Your task to perform on an android device: Go to calendar. Show me events next week Image 0: 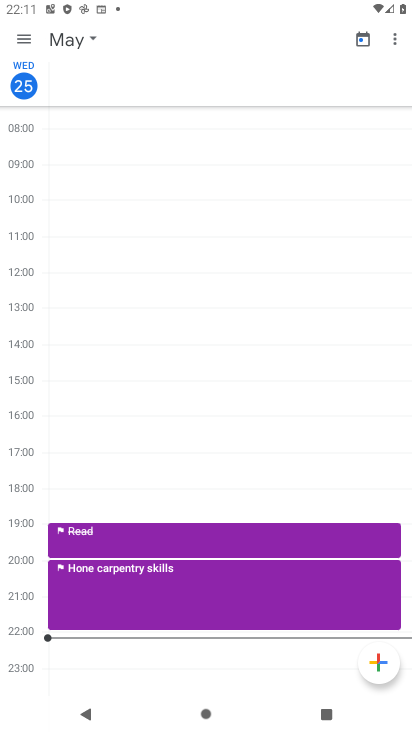
Step 0: press home button
Your task to perform on an android device: Go to calendar. Show me events next week Image 1: 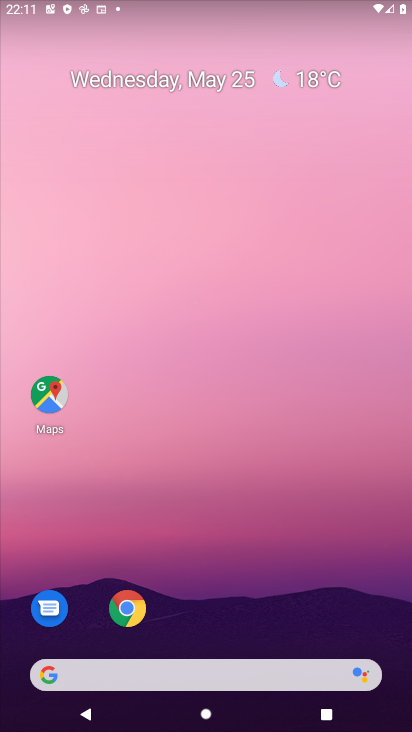
Step 1: click (179, 81)
Your task to perform on an android device: Go to calendar. Show me events next week Image 2: 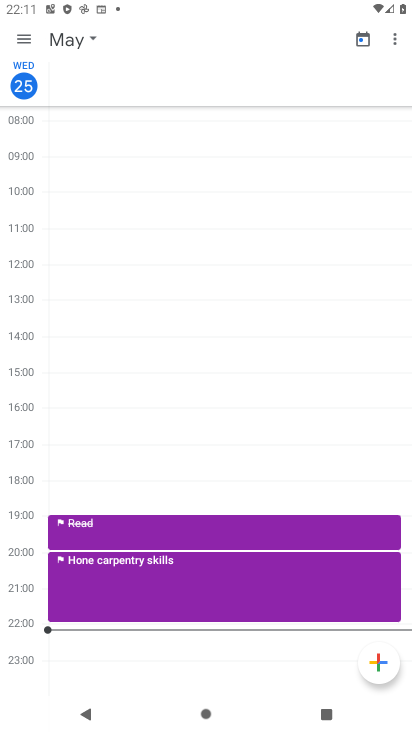
Step 2: click (27, 40)
Your task to perform on an android device: Go to calendar. Show me events next week Image 3: 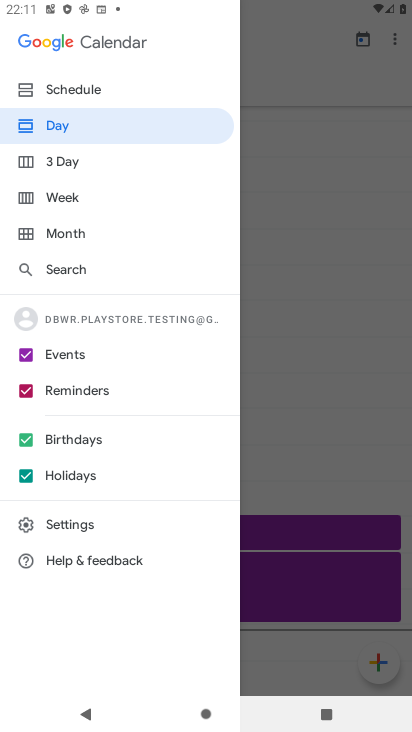
Step 3: click (88, 193)
Your task to perform on an android device: Go to calendar. Show me events next week Image 4: 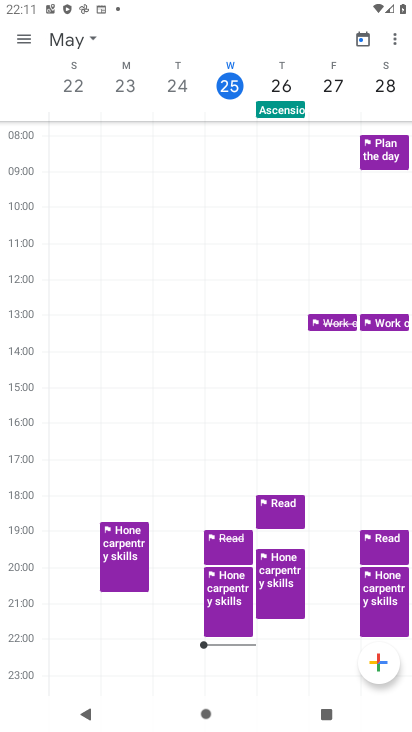
Step 4: drag from (10, 605) to (18, 111)
Your task to perform on an android device: Go to calendar. Show me events next week Image 5: 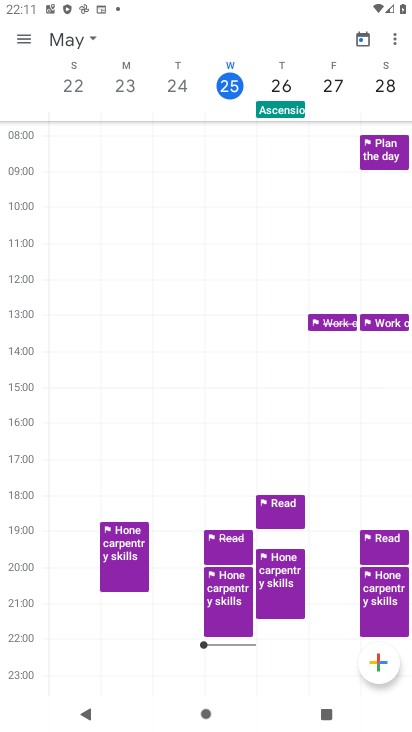
Step 5: click (75, 36)
Your task to perform on an android device: Go to calendar. Show me events next week Image 6: 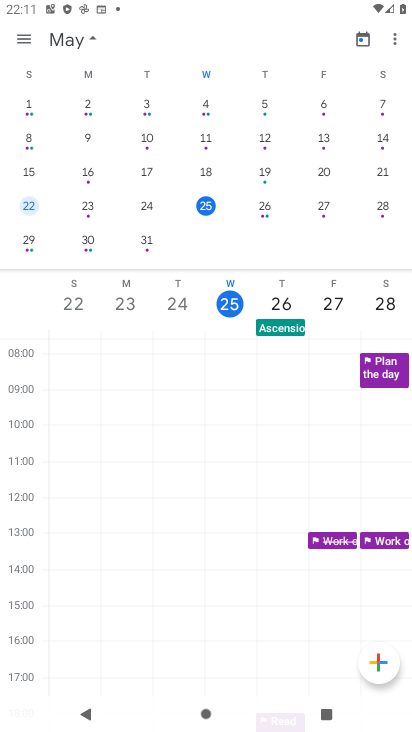
Step 6: click (28, 252)
Your task to perform on an android device: Go to calendar. Show me events next week Image 7: 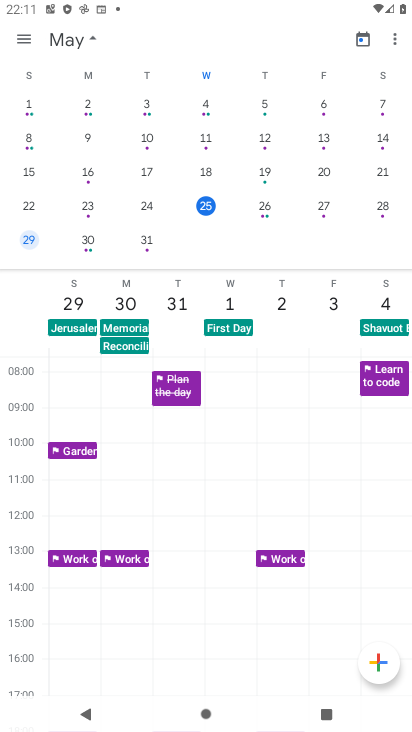
Step 7: task complete